Your task to perform on an android device: Search for pizza restaurants on Maps Image 0: 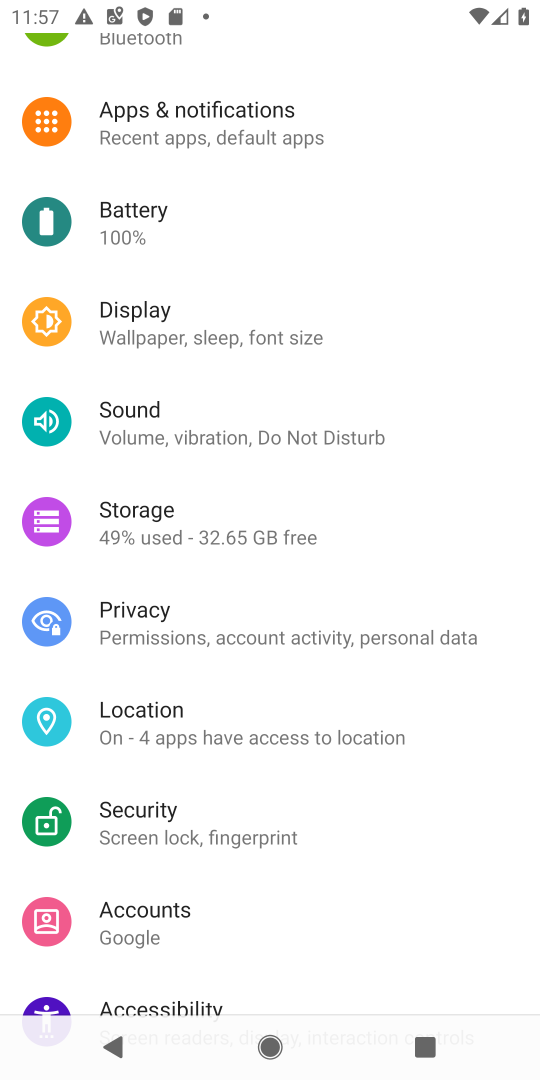
Step 0: press home button
Your task to perform on an android device: Search for pizza restaurants on Maps Image 1: 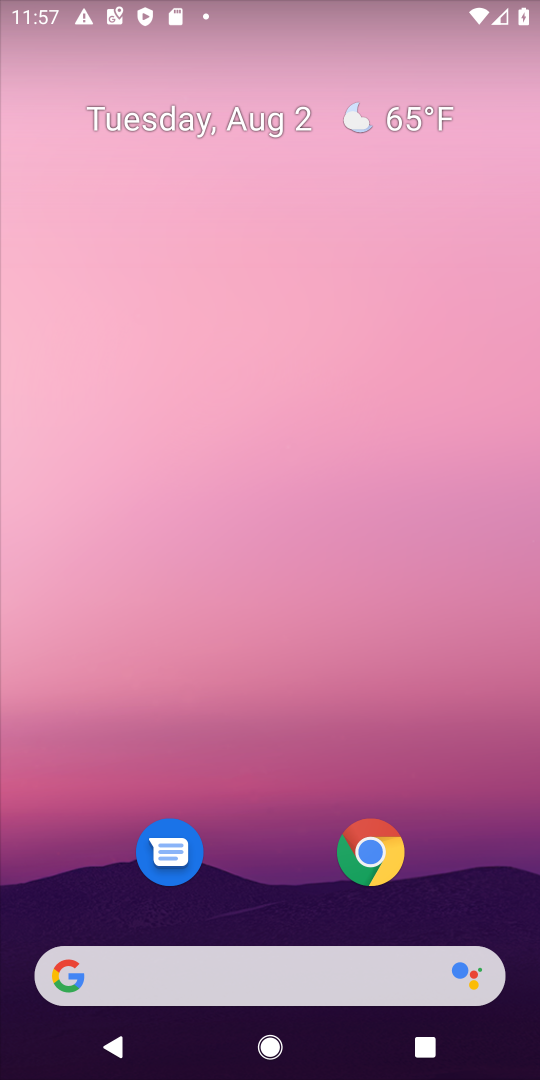
Step 1: drag from (500, 889) to (259, 46)
Your task to perform on an android device: Search for pizza restaurants on Maps Image 2: 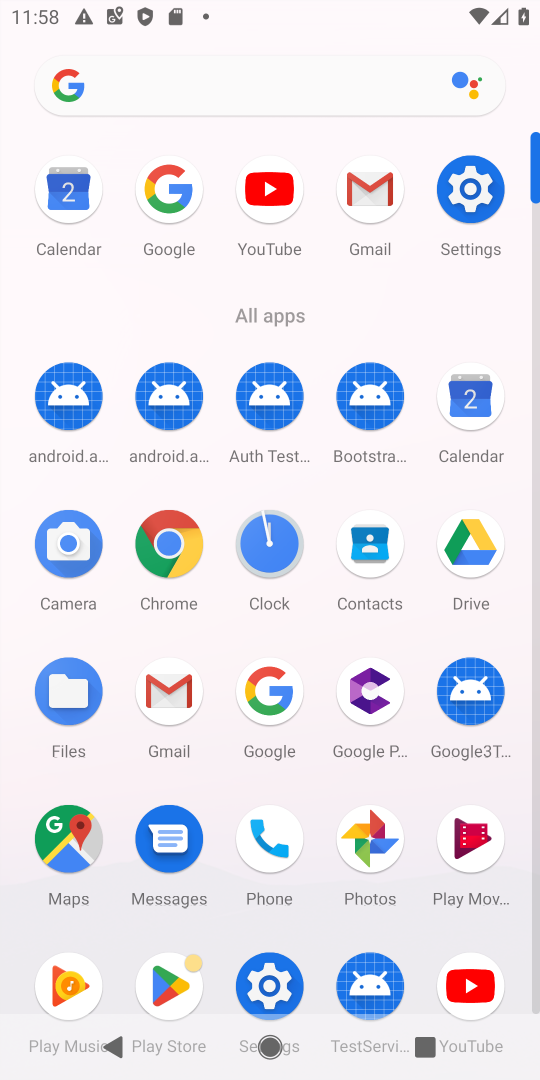
Step 2: click (73, 843)
Your task to perform on an android device: Search for pizza restaurants on Maps Image 3: 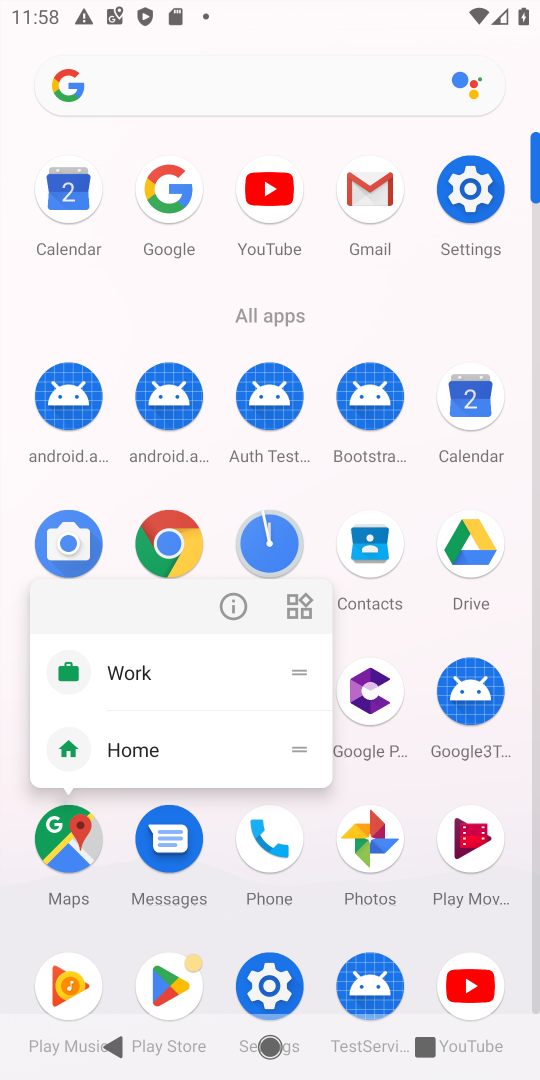
Step 3: click (73, 843)
Your task to perform on an android device: Search for pizza restaurants on Maps Image 4: 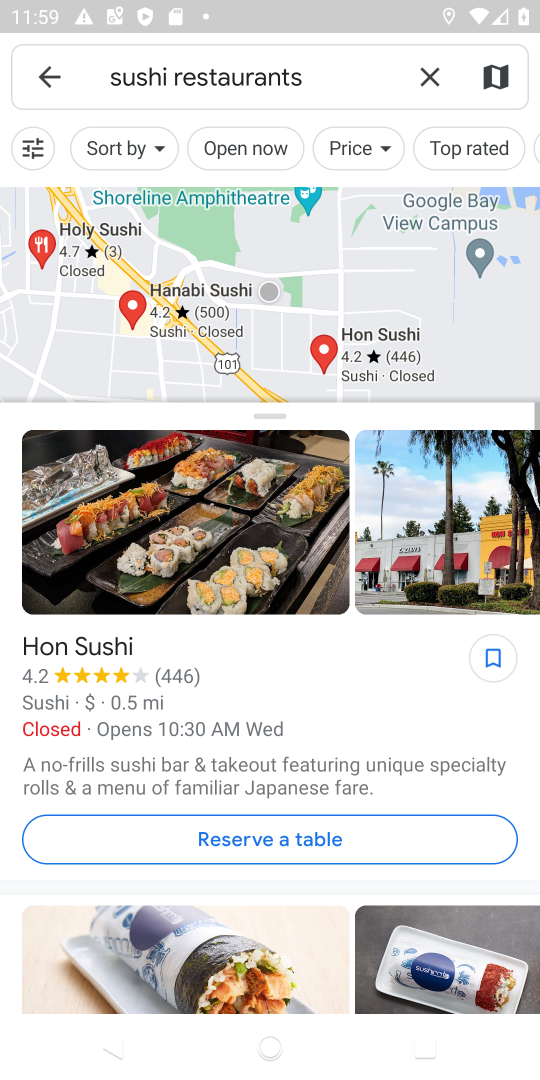
Step 4: press back button
Your task to perform on an android device: Search for pizza restaurants on Maps Image 5: 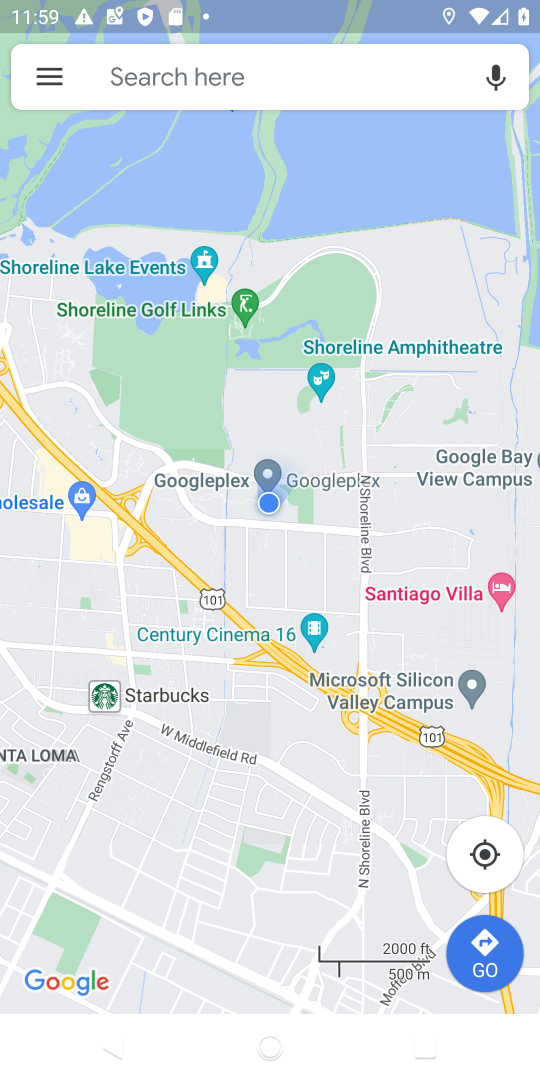
Step 5: click (210, 74)
Your task to perform on an android device: Search for pizza restaurants on Maps Image 6: 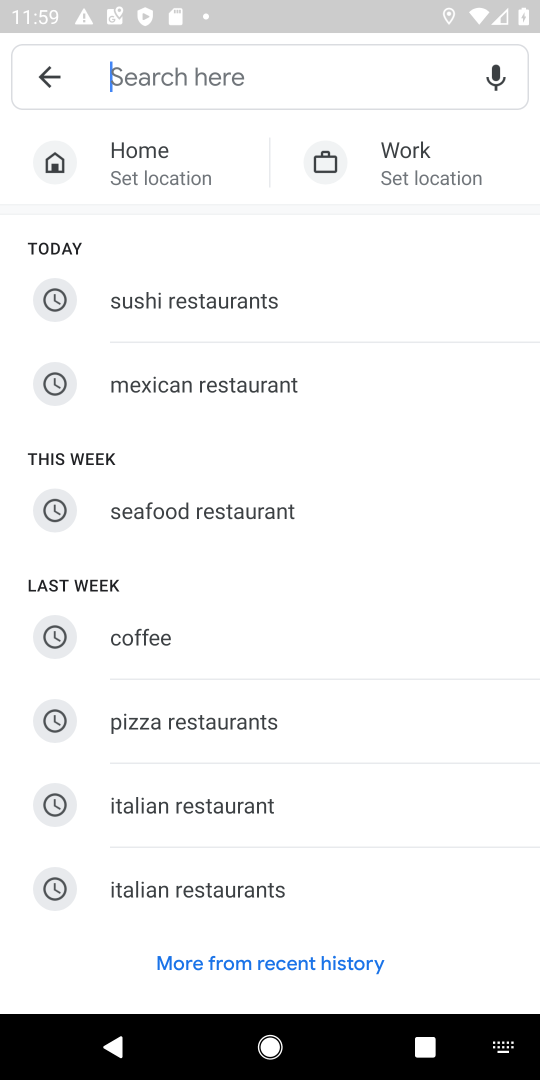
Step 6: click (208, 716)
Your task to perform on an android device: Search for pizza restaurants on Maps Image 7: 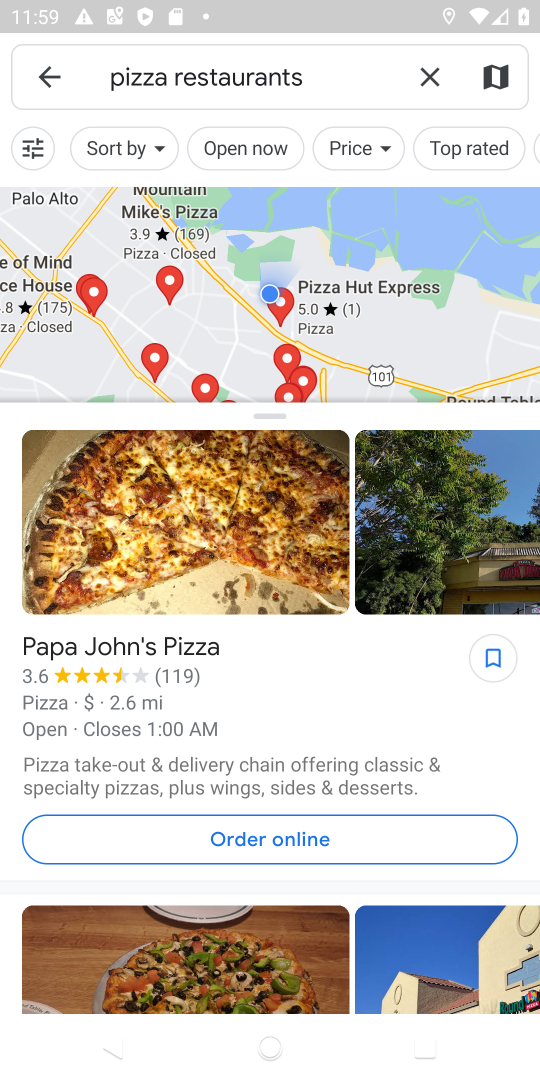
Step 7: task complete